Your task to perform on an android device: stop showing notifications on the lock screen Image 0: 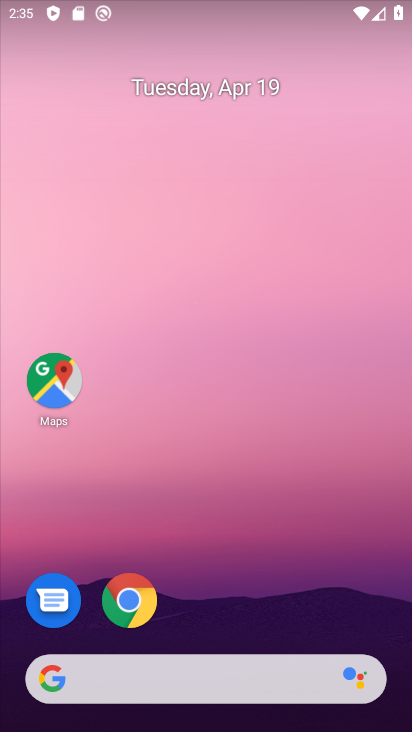
Step 0: drag from (338, 593) to (309, 36)
Your task to perform on an android device: stop showing notifications on the lock screen Image 1: 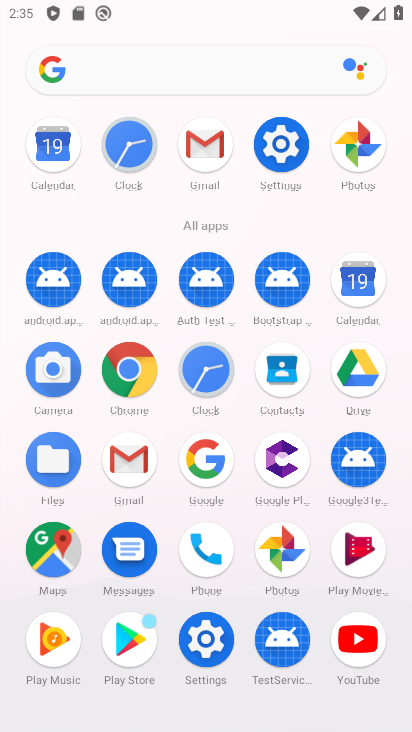
Step 1: click (205, 640)
Your task to perform on an android device: stop showing notifications on the lock screen Image 2: 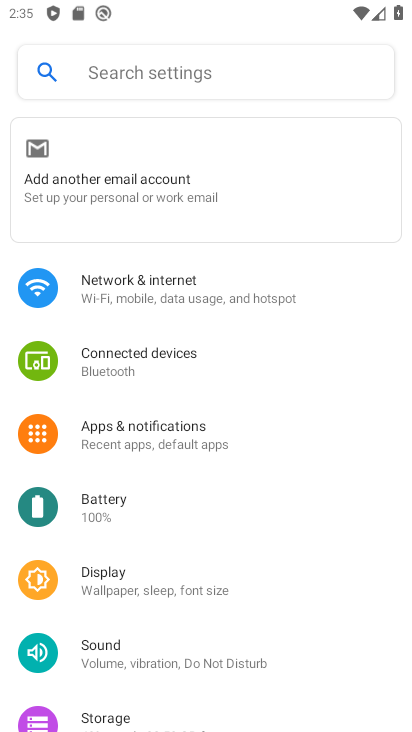
Step 2: click (113, 435)
Your task to perform on an android device: stop showing notifications on the lock screen Image 3: 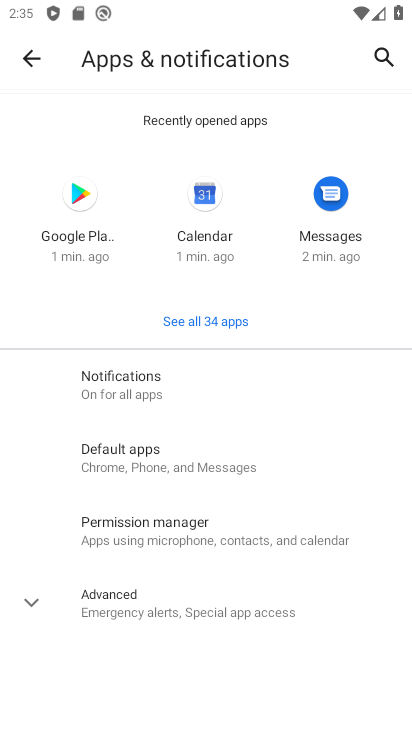
Step 3: click (116, 382)
Your task to perform on an android device: stop showing notifications on the lock screen Image 4: 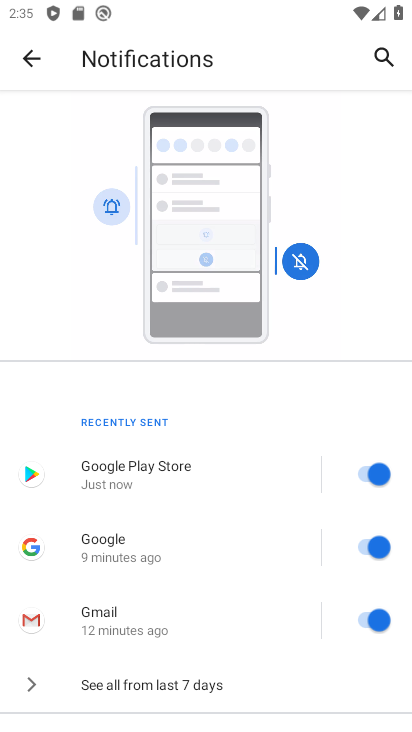
Step 4: drag from (319, 608) to (245, 20)
Your task to perform on an android device: stop showing notifications on the lock screen Image 5: 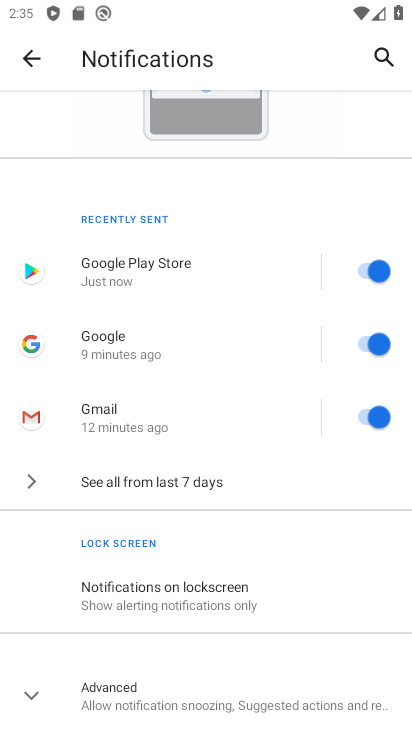
Step 5: click (104, 589)
Your task to perform on an android device: stop showing notifications on the lock screen Image 6: 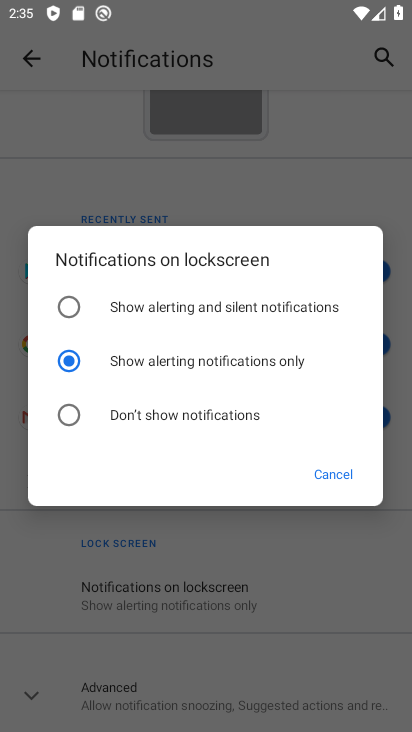
Step 6: click (63, 416)
Your task to perform on an android device: stop showing notifications on the lock screen Image 7: 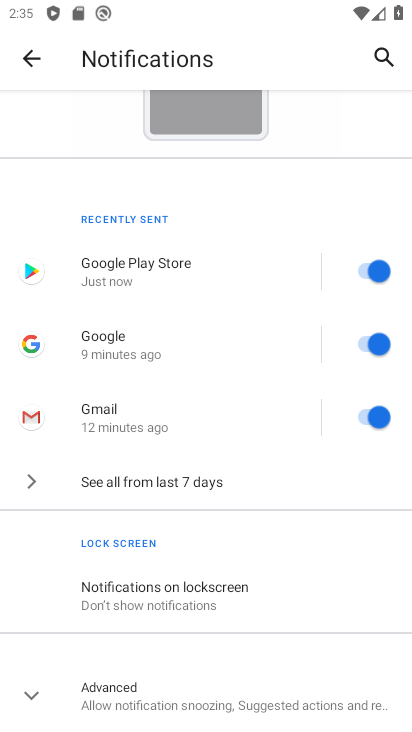
Step 7: task complete